Your task to perform on an android device: turn off airplane mode Image 0: 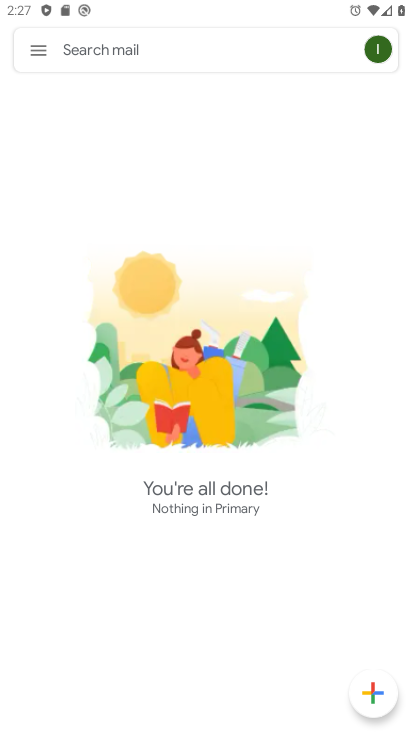
Step 0: press home button
Your task to perform on an android device: turn off airplane mode Image 1: 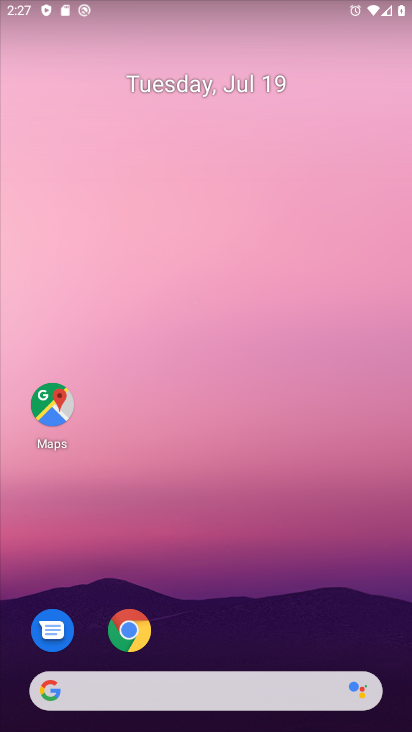
Step 1: drag from (279, 562) to (266, 53)
Your task to perform on an android device: turn off airplane mode Image 2: 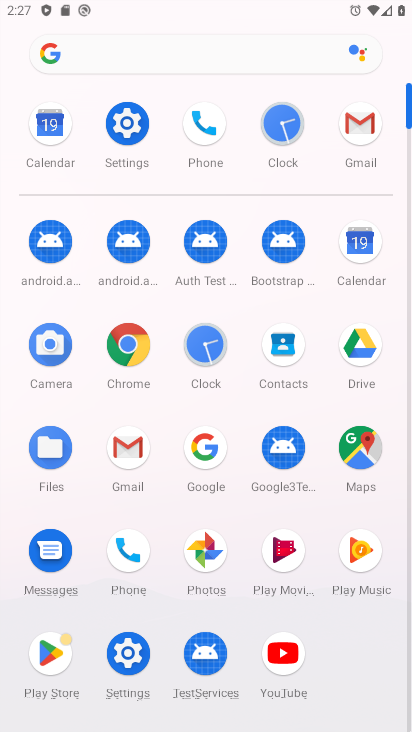
Step 2: click (133, 121)
Your task to perform on an android device: turn off airplane mode Image 3: 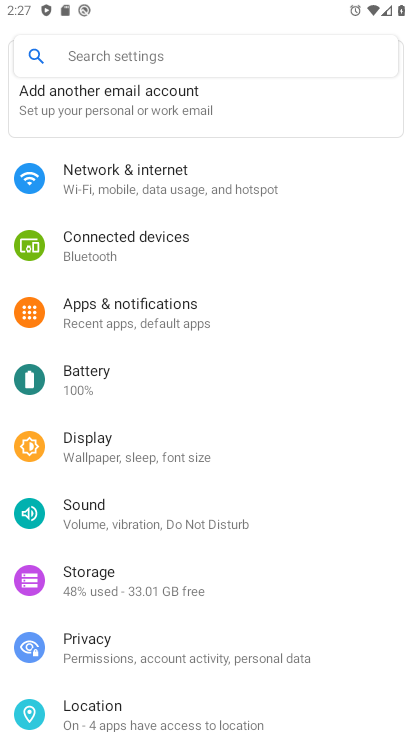
Step 3: click (231, 190)
Your task to perform on an android device: turn off airplane mode Image 4: 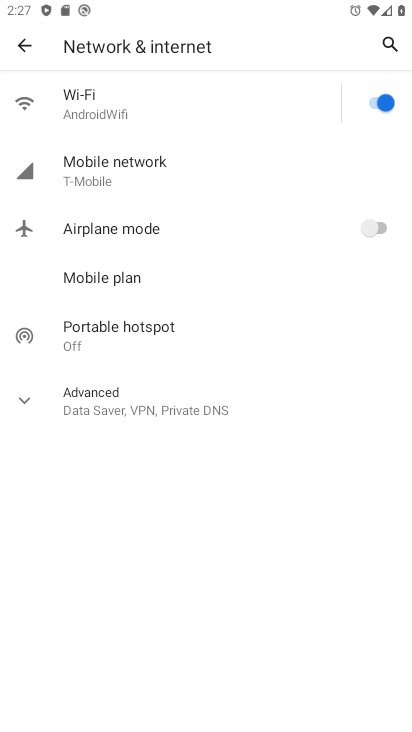
Step 4: task complete